Your task to perform on an android device: turn on the 24-hour format for clock Image 0: 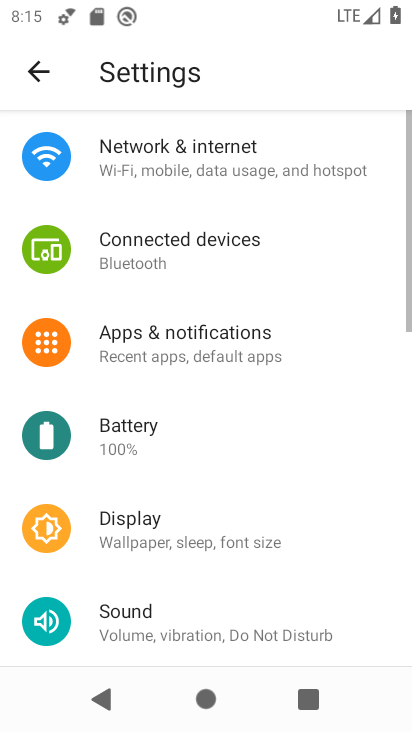
Step 0: press home button
Your task to perform on an android device: turn on the 24-hour format for clock Image 1: 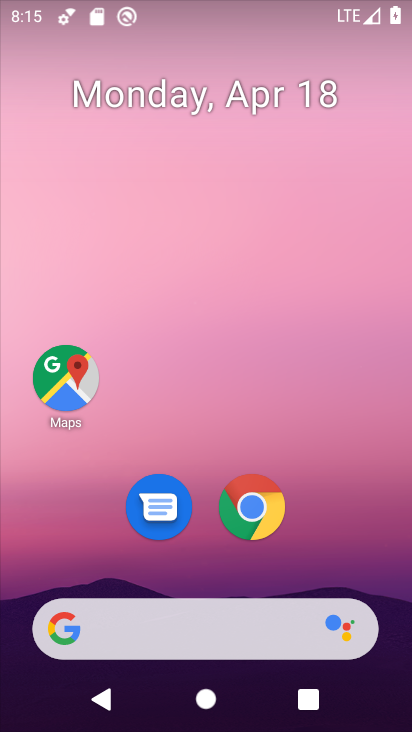
Step 1: drag from (10, 505) to (33, 471)
Your task to perform on an android device: turn on the 24-hour format for clock Image 2: 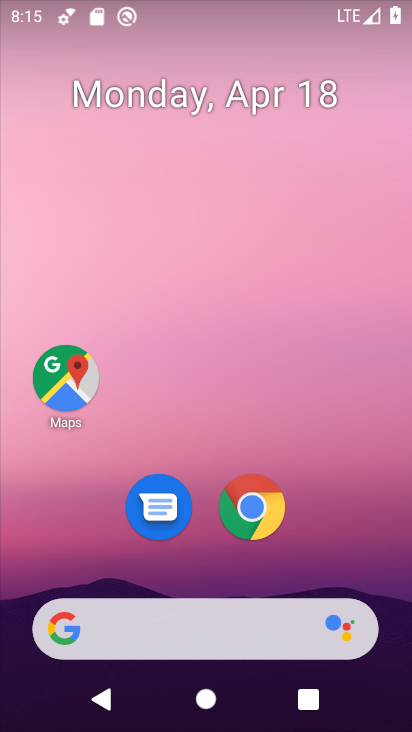
Step 2: drag from (13, 512) to (200, 70)
Your task to perform on an android device: turn on the 24-hour format for clock Image 3: 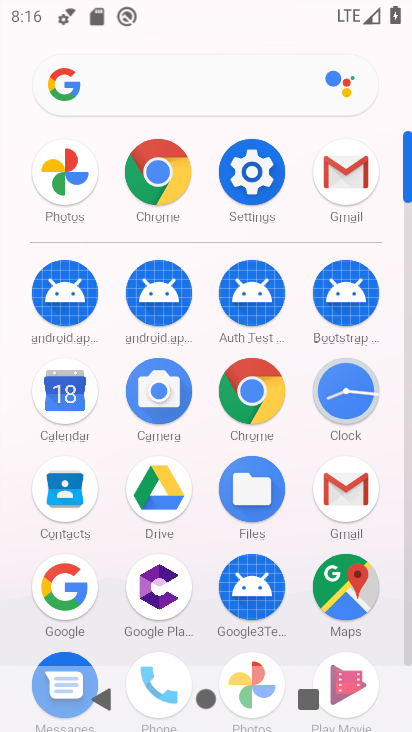
Step 3: click (335, 393)
Your task to perform on an android device: turn on the 24-hour format for clock Image 4: 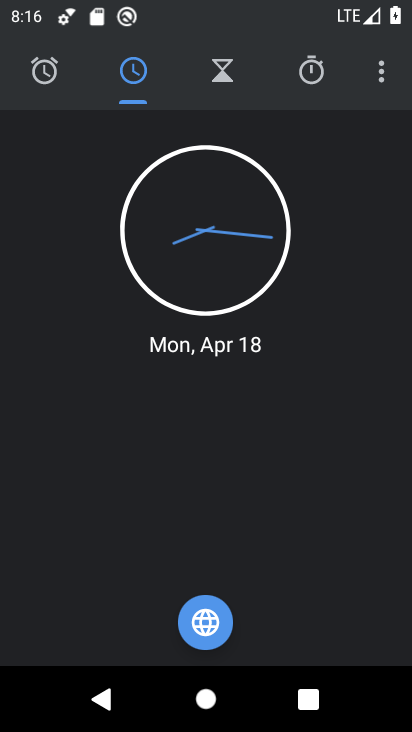
Step 4: click (377, 68)
Your task to perform on an android device: turn on the 24-hour format for clock Image 5: 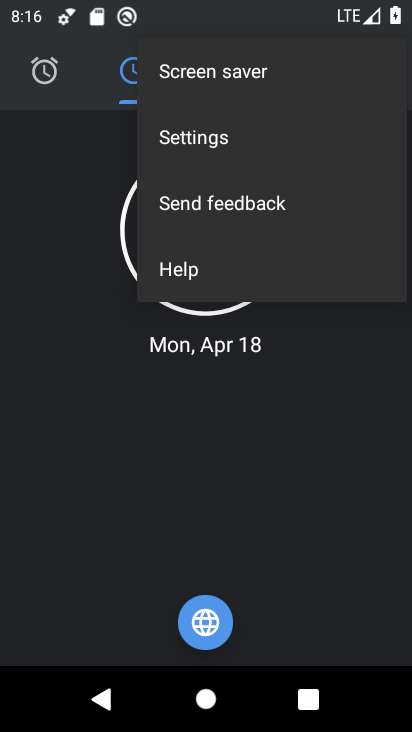
Step 5: click (221, 134)
Your task to perform on an android device: turn on the 24-hour format for clock Image 6: 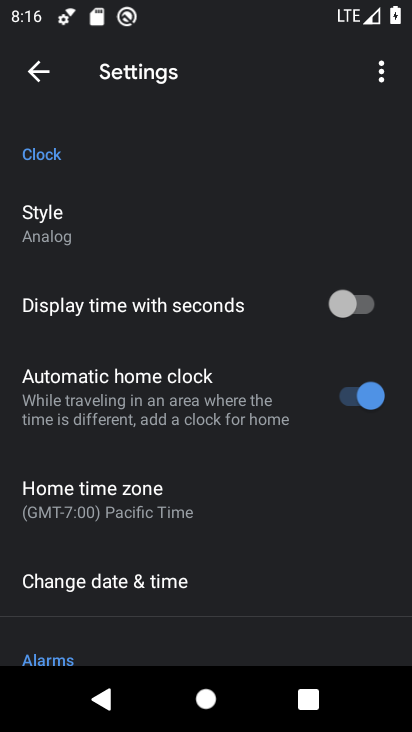
Step 6: drag from (197, 534) to (263, 136)
Your task to perform on an android device: turn on the 24-hour format for clock Image 7: 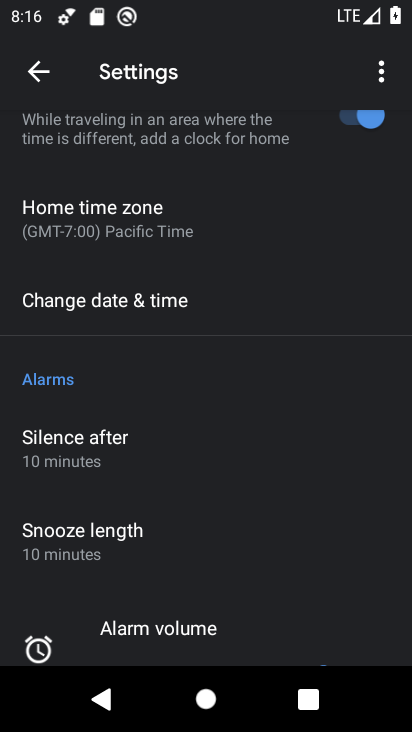
Step 7: drag from (114, 506) to (204, 184)
Your task to perform on an android device: turn on the 24-hour format for clock Image 8: 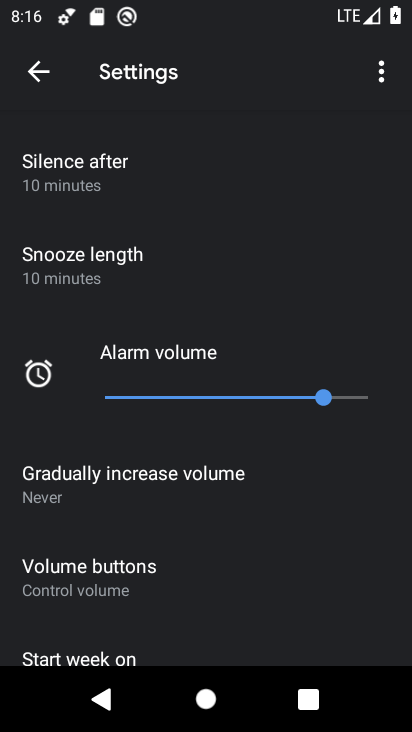
Step 8: drag from (234, 181) to (192, 628)
Your task to perform on an android device: turn on the 24-hour format for clock Image 9: 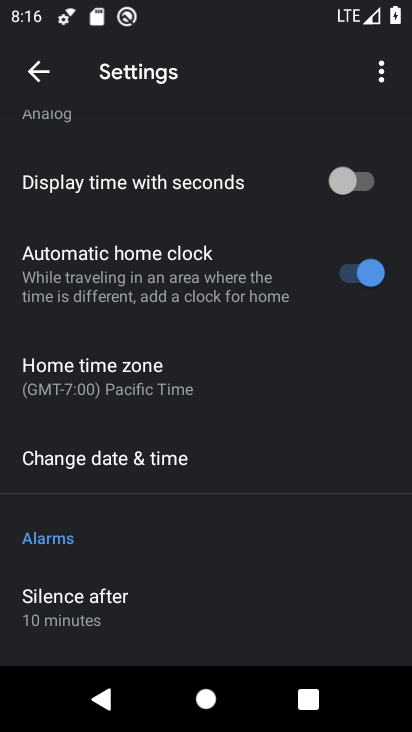
Step 9: drag from (188, 225) to (198, 656)
Your task to perform on an android device: turn on the 24-hour format for clock Image 10: 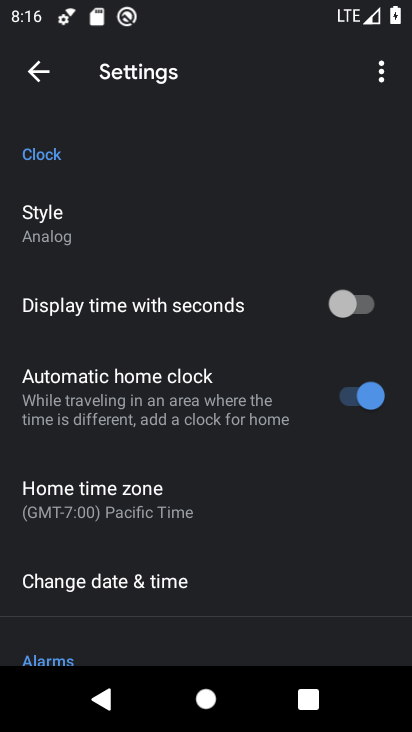
Step 10: drag from (194, 566) to (232, 272)
Your task to perform on an android device: turn on the 24-hour format for clock Image 11: 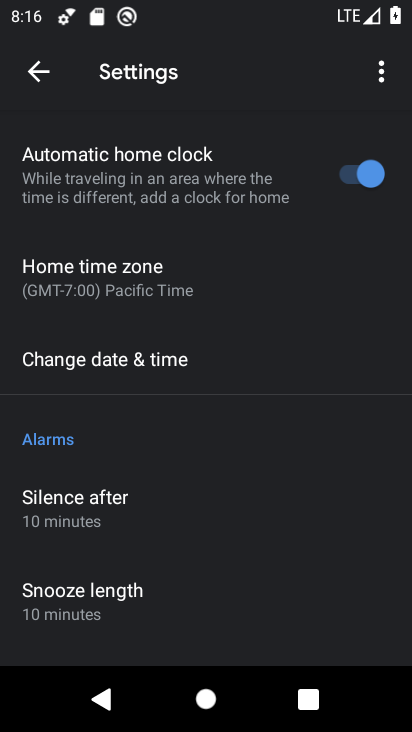
Step 11: drag from (173, 494) to (257, 143)
Your task to perform on an android device: turn on the 24-hour format for clock Image 12: 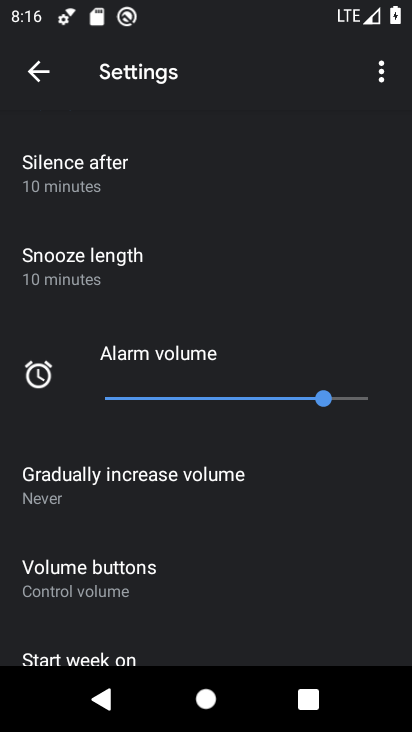
Step 12: drag from (208, 571) to (243, 206)
Your task to perform on an android device: turn on the 24-hour format for clock Image 13: 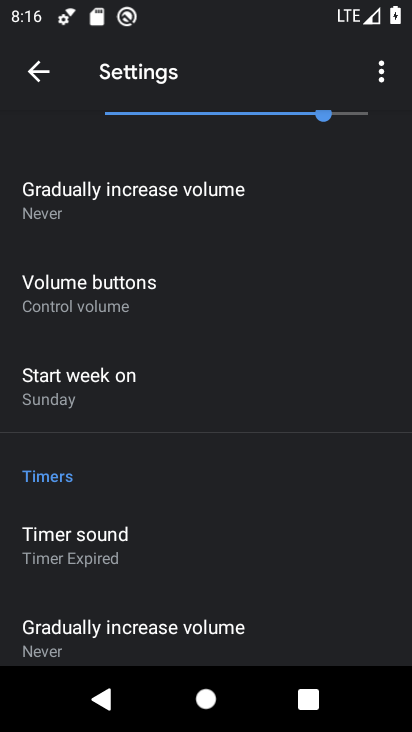
Step 13: drag from (136, 581) to (187, 221)
Your task to perform on an android device: turn on the 24-hour format for clock Image 14: 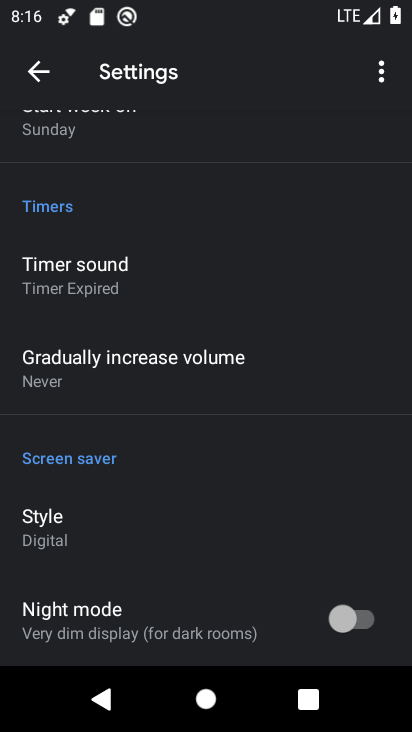
Step 14: drag from (205, 592) to (250, 147)
Your task to perform on an android device: turn on the 24-hour format for clock Image 15: 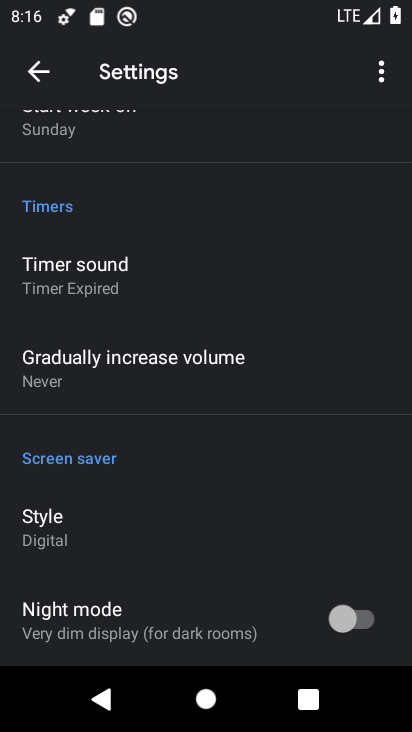
Step 15: drag from (245, 218) to (200, 605)
Your task to perform on an android device: turn on the 24-hour format for clock Image 16: 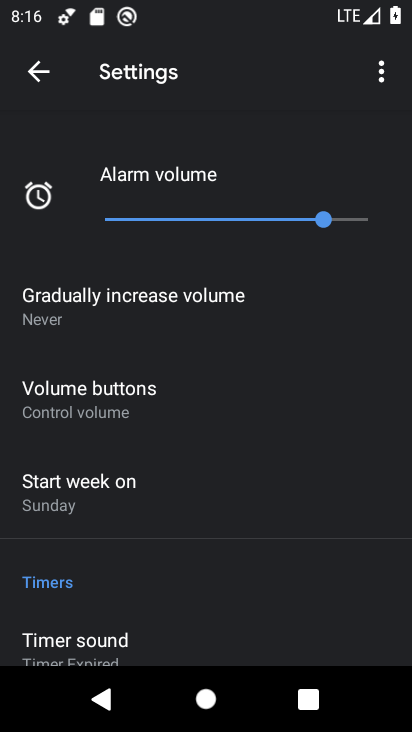
Step 16: drag from (251, 175) to (196, 605)
Your task to perform on an android device: turn on the 24-hour format for clock Image 17: 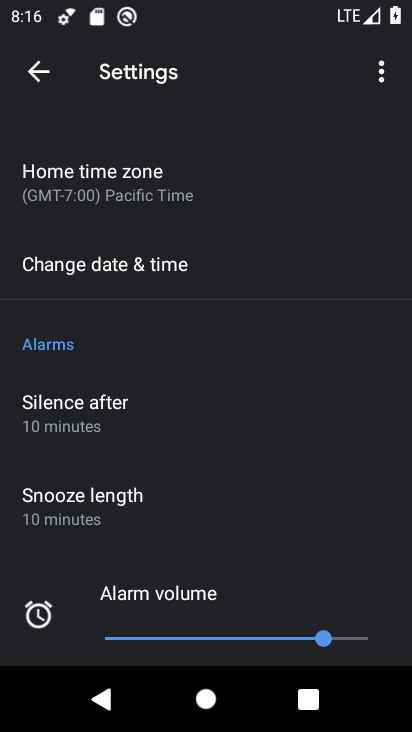
Step 17: click (188, 284)
Your task to perform on an android device: turn on the 24-hour format for clock Image 18: 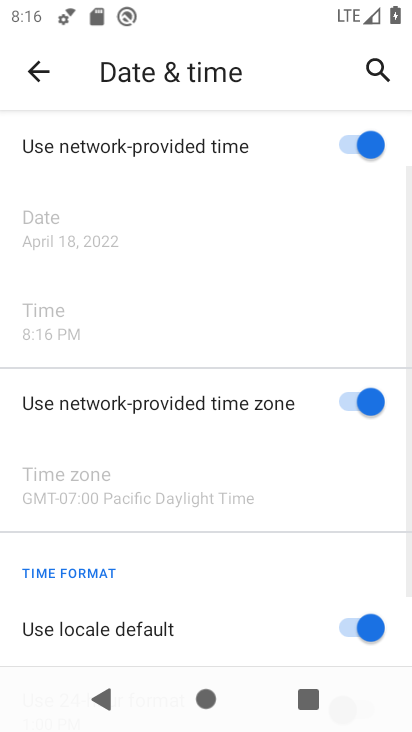
Step 18: task complete